Your task to perform on an android device: visit the assistant section in the google photos Image 0: 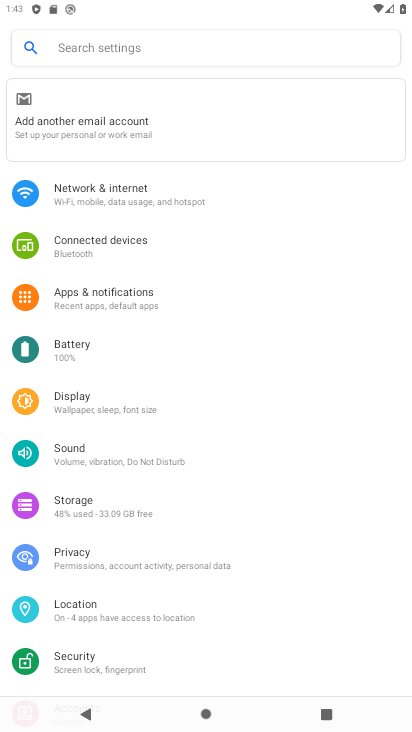
Step 0: press back button
Your task to perform on an android device: visit the assistant section in the google photos Image 1: 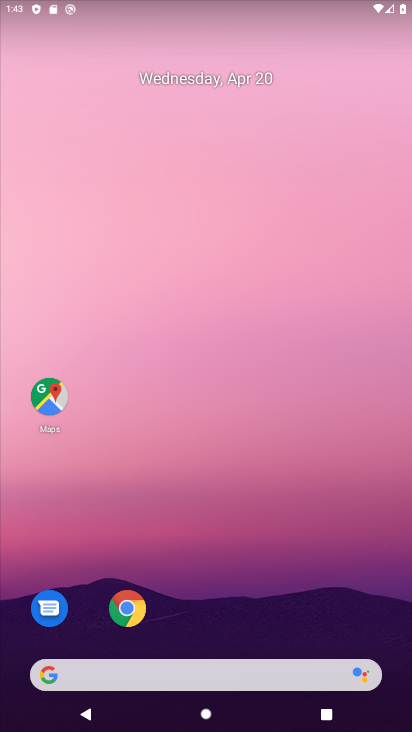
Step 1: drag from (246, 582) to (238, 328)
Your task to perform on an android device: visit the assistant section in the google photos Image 2: 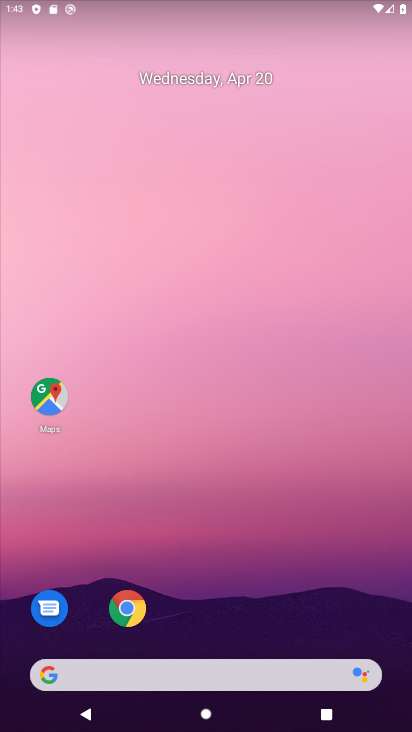
Step 2: drag from (240, 602) to (239, 294)
Your task to perform on an android device: visit the assistant section in the google photos Image 3: 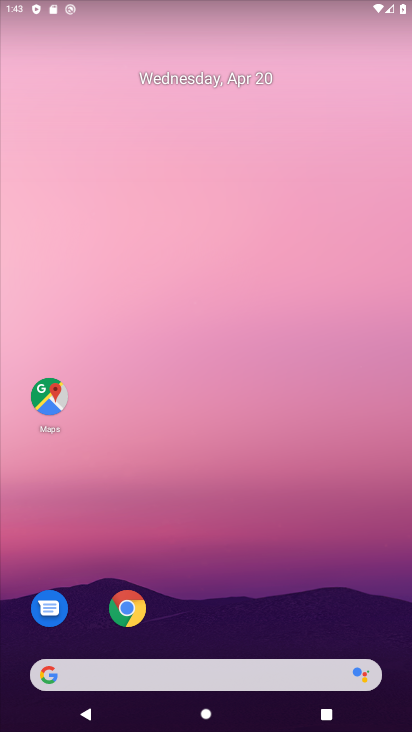
Step 3: drag from (260, 614) to (185, 101)
Your task to perform on an android device: visit the assistant section in the google photos Image 4: 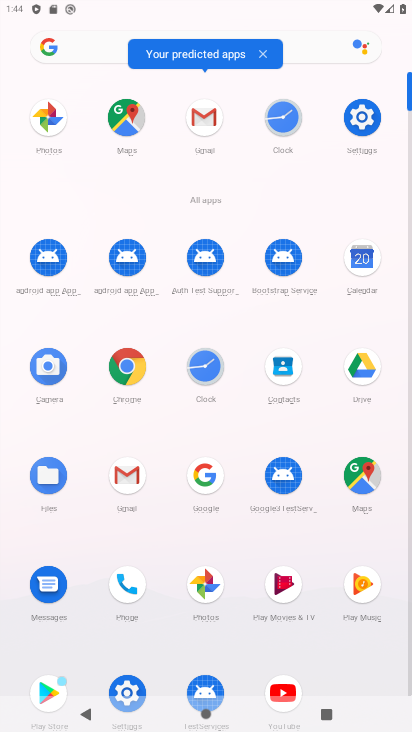
Step 4: click (221, 587)
Your task to perform on an android device: visit the assistant section in the google photos Image 5: 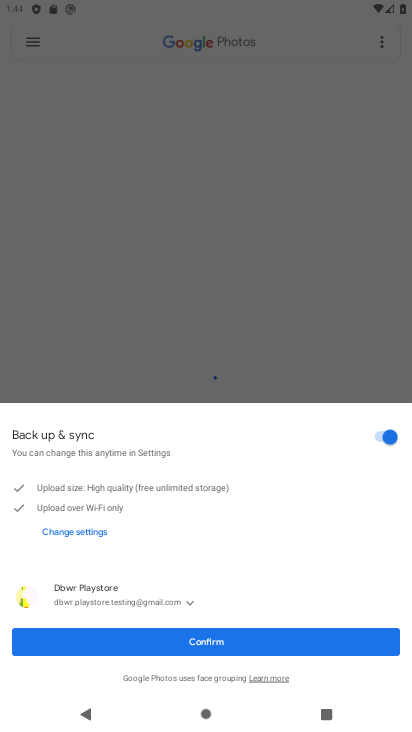
Step 5: click (209, 635)
Your task to perform on an android device: visit the assistant section in the google photos Image 6: 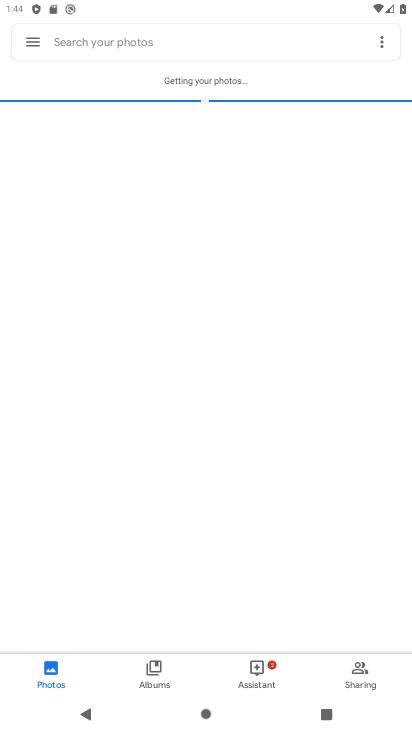
Step 6: click (244, 681)
Your task to perform on an android device: visit the assistant section in the google photos Image 7: 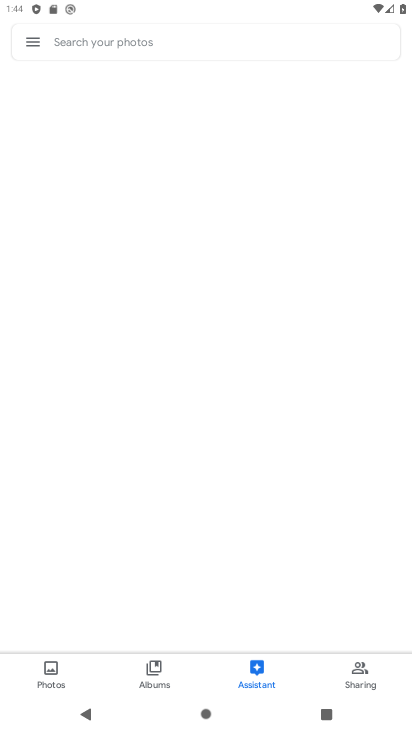
Step 7: task complete